Your task to perform on an android device: check google app version Image 0: 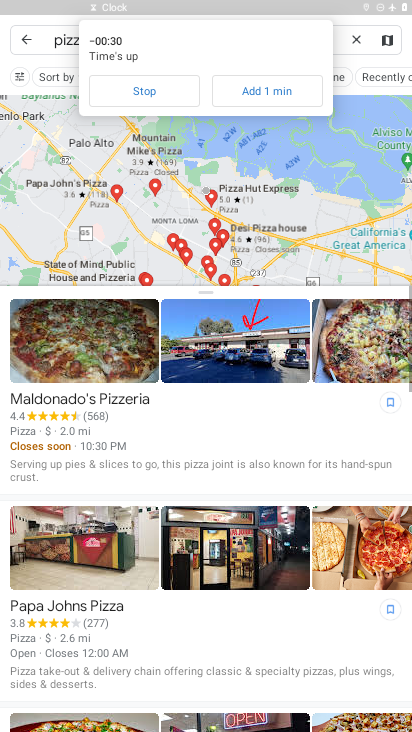
Step 0: click (144, 93)
Your task to perform on an android device: check google app version Image 1: 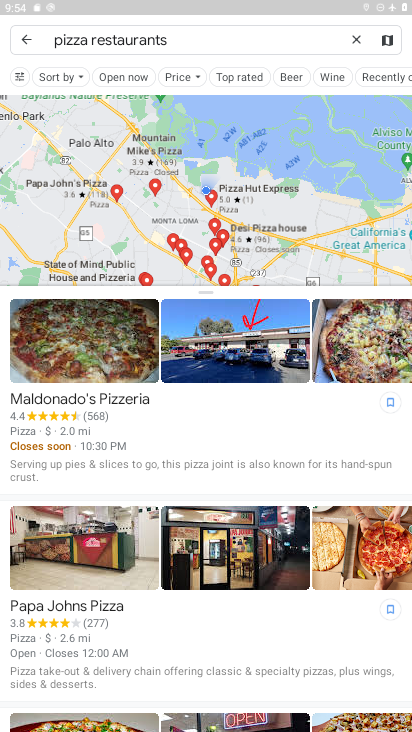
Step 1: press home button
Your task to perform on an android device: check google app version Image 2: 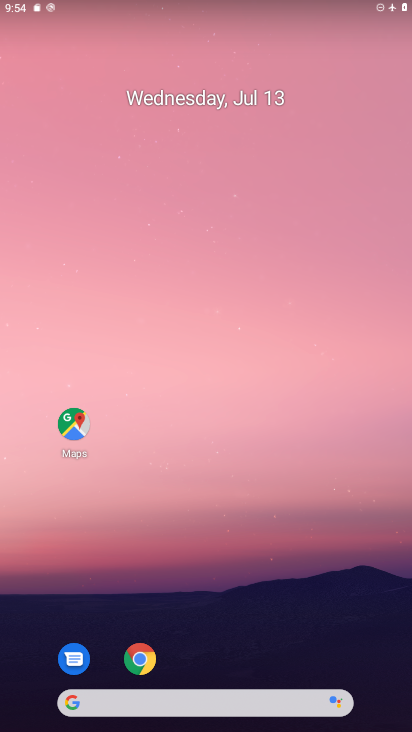
Step 2: drag from (191, 697) to (204, 1)
Your task to perform on an android device: check google app version Image 3: 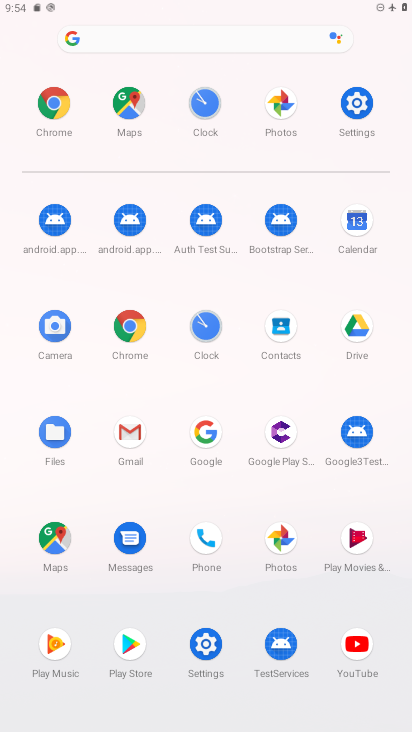
Step 3: click (212, 449)
Your task to perform on an android device: check google app version Image 4: 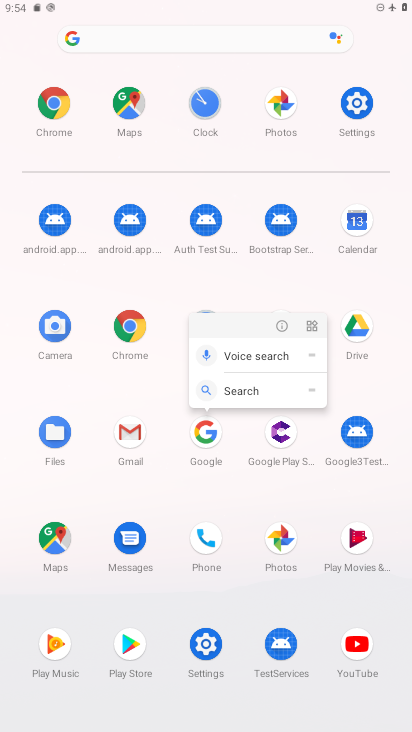
Step 4: click (280, 334)
Your task to perform on an android device: check google app version Image 5: 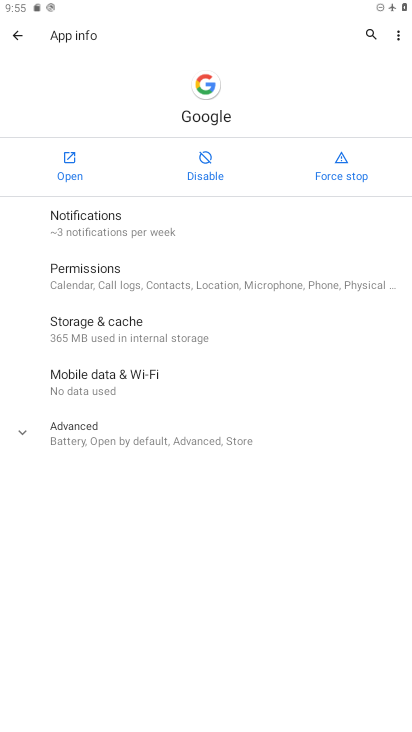
Step 5: click (78, 435)
Your task to perform on an android device: check google app version Image 6: 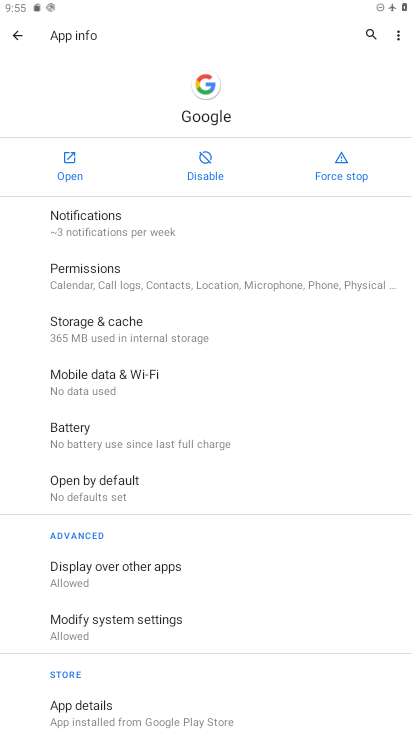
Step 6: task complete